Your task to perform on an android device: toggle javascript in the chrome app Image 0: 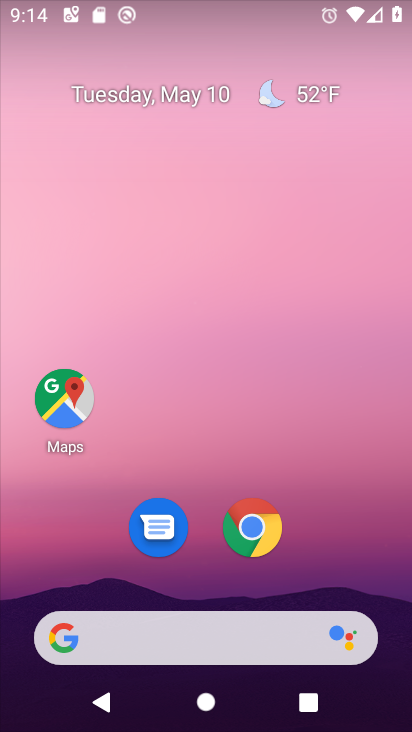
Step 0: click (259, 532)
Your task to perform on an android device: toggle javascript in the chrome app Image 1: 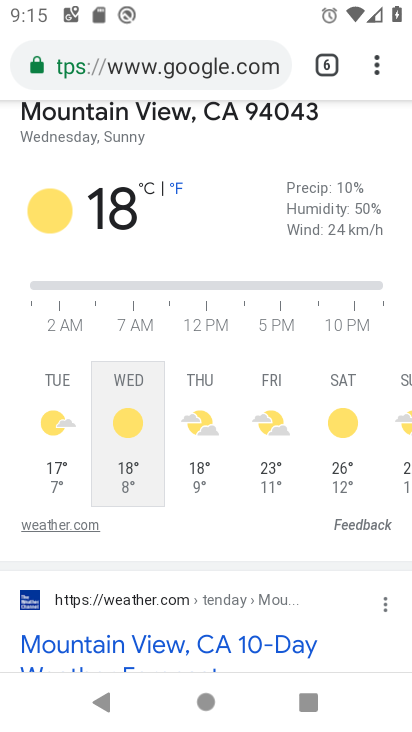
Step 1: click (374, 60)
Your task to perform on an android device: toggle javascript in the chrome app Image 2: 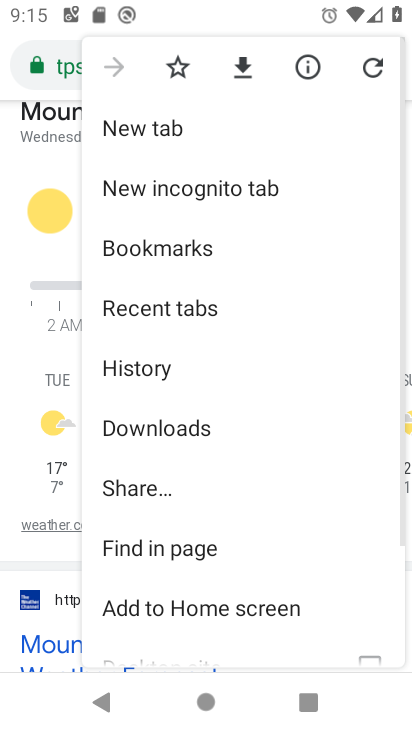
Step 2: drag from (177, 590) to (147, 271)
Your task to perform on an android device: toggle javascript in the chrome app Image 3: 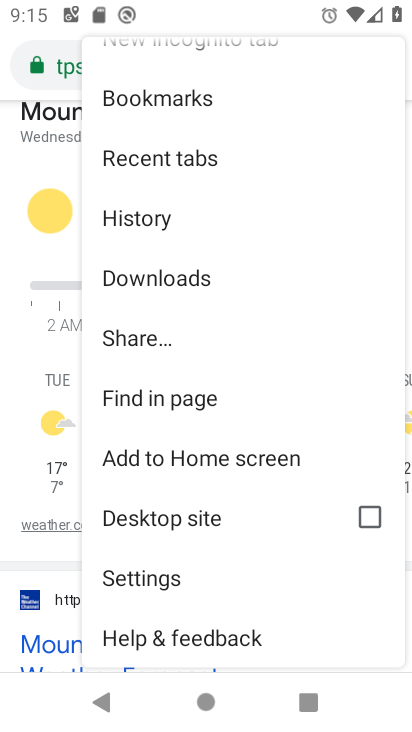
Step 3: click (139, 584)
Your task to perform on an android device: toggle javascript in the chrome app Image 4: 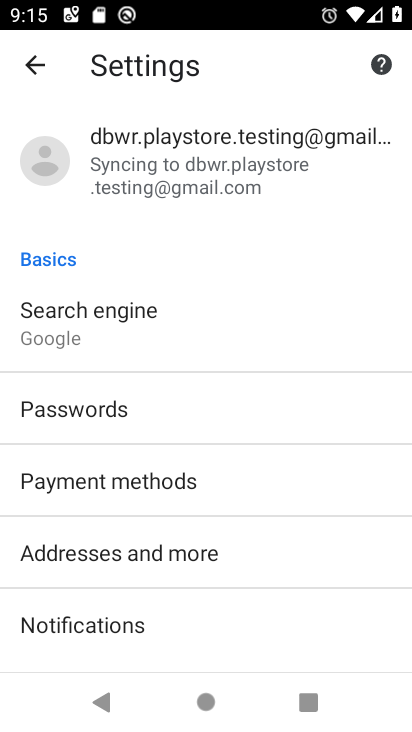
Step 4: drag from (184, 615) to (196, 202)
Your task to perform on an android device: toggle javascript in the chrome app Image 5: 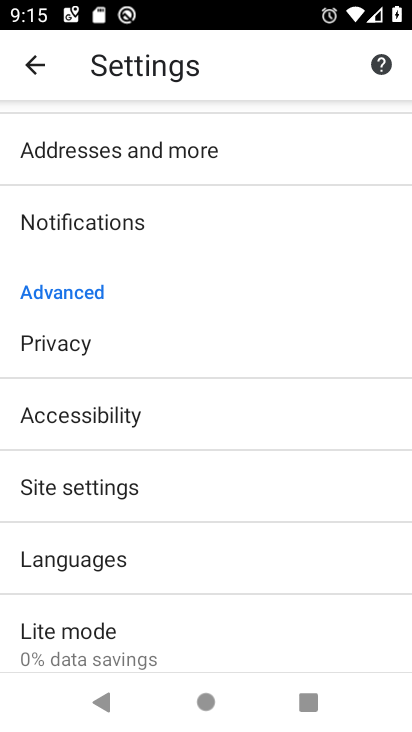
Step 5: click (76, 492)
Your task to perform on an android device: toggle javascript in the chrome app Image 6: 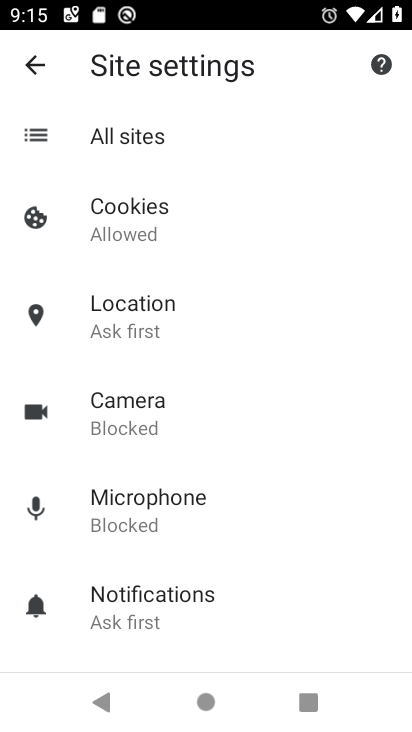
Step 6: drag from (320, 583) to (273, 322)
Your task to perform on an android device: toggle javascript in the chrome app Image 7: 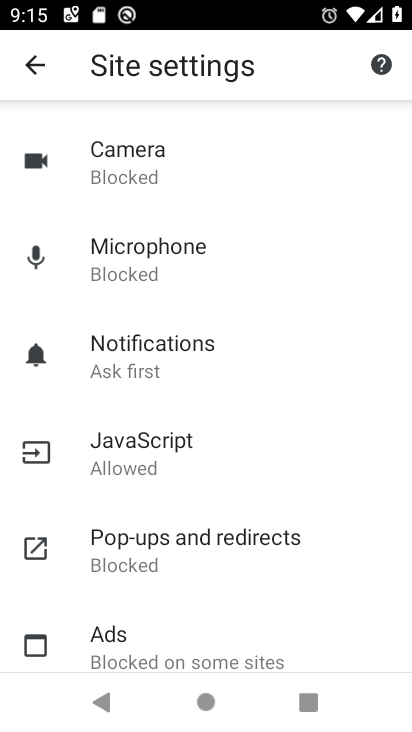
Step 7: click (159, 461)
Your task to perform on an android device: toggle javascript in the chrome app Image 8: 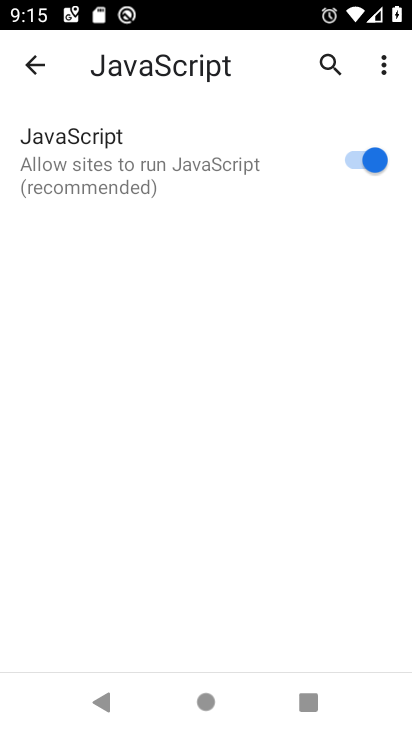
Step 8: click (365, 167)
Your task to perform on an android device: toggle javascript in the chrome app Image 9: 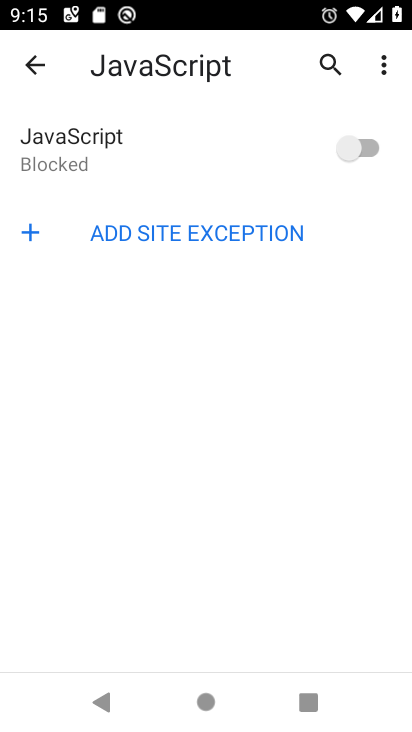
Step 9: task complete